Your task to perform on an android device: Open Chrome and go to the settings page Image 0: 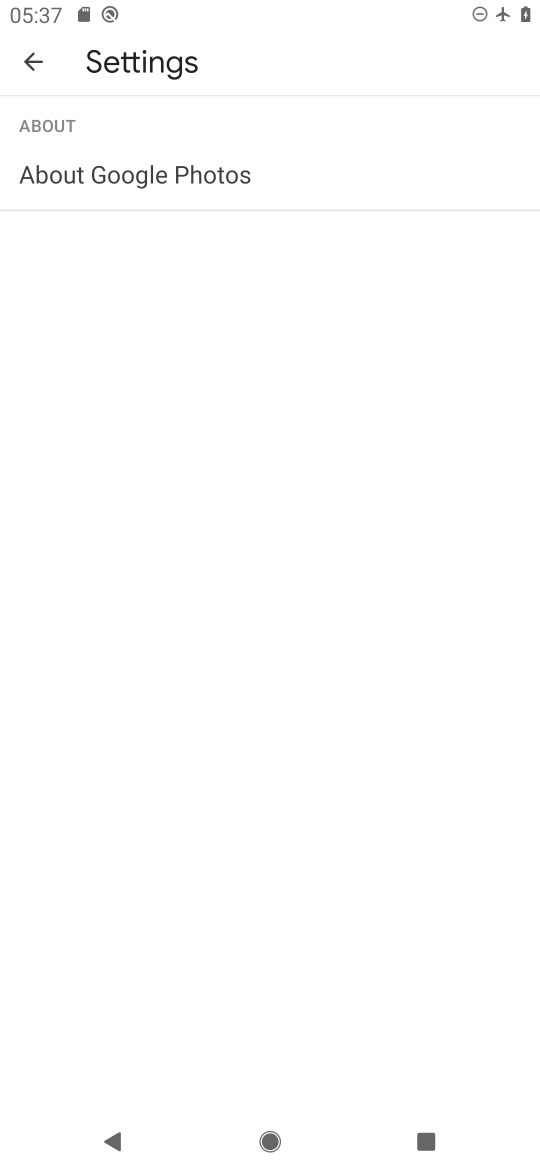
Step 0: press home button
Your task to perform on an android device: Open Chrome and go to the settings page Image 1: 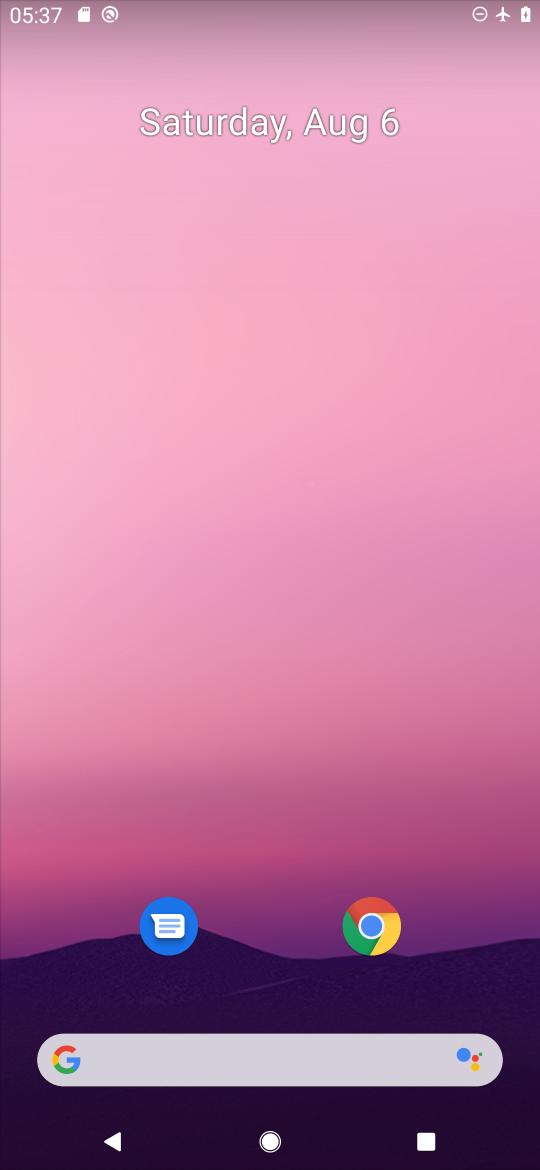
Step 1: click (352, 934)
Your task to perform on an android device: Open Chrome and go to the settings page Image 2: 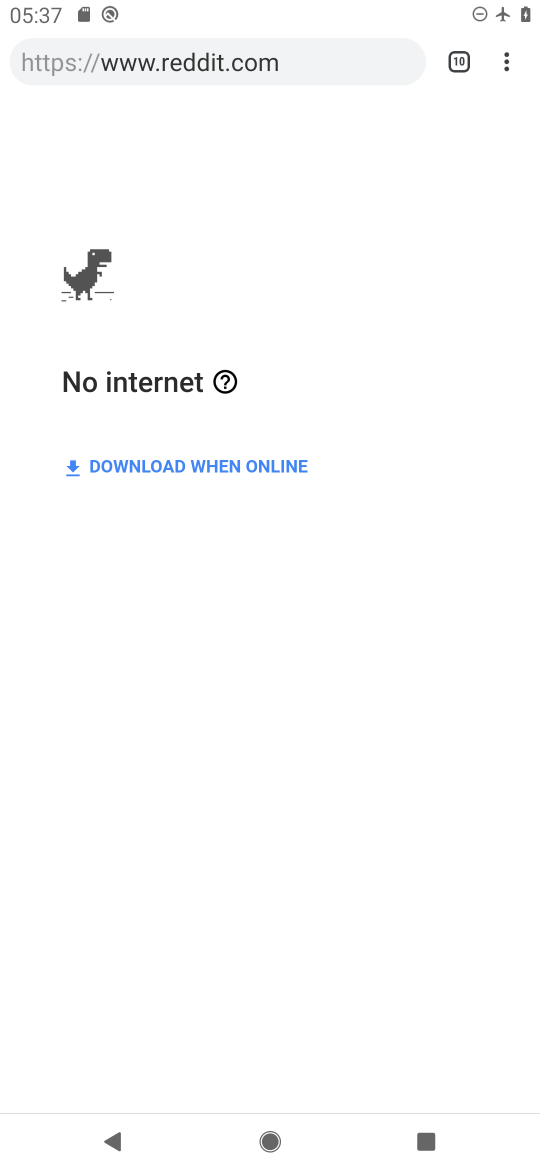
Step 2: click (510, 57)
Your task to perform on an android device: Open Chrome and go to the settings page Image 3: 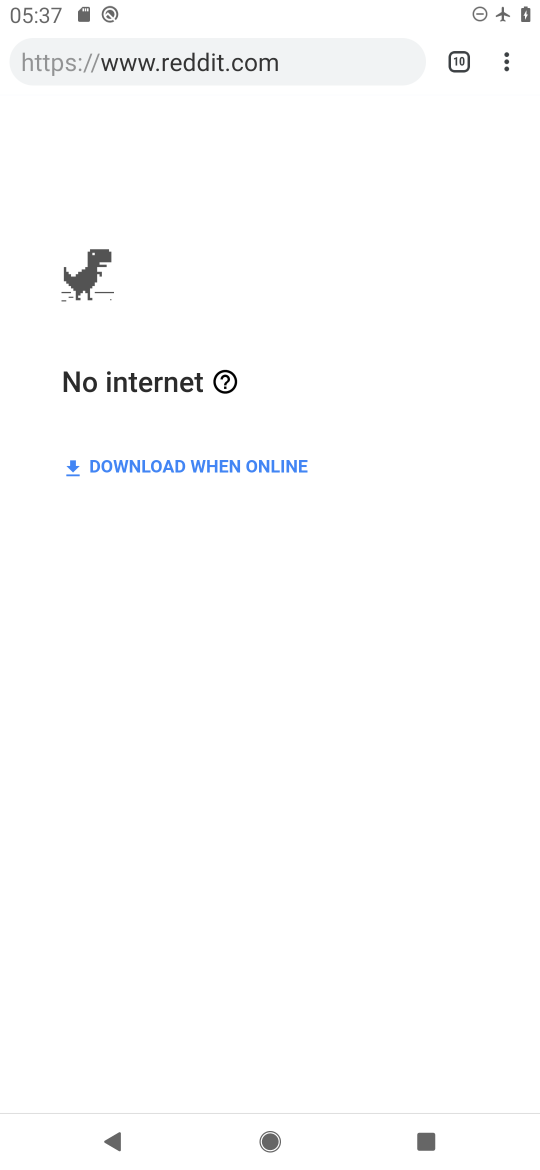
Step 3: click (511, 52)
Your task to perform on an android device: Open Chrome and go to the settings page Image 4: 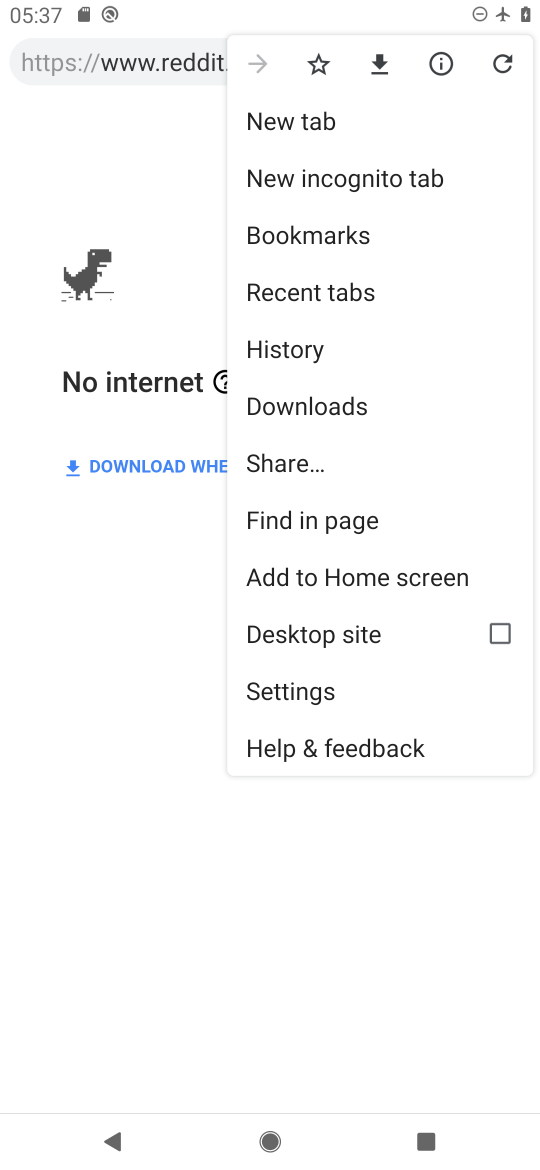
Step 4: click (302, 678)
Your task to perform on an android device: Open Chrome and go to the settings page Image 5: 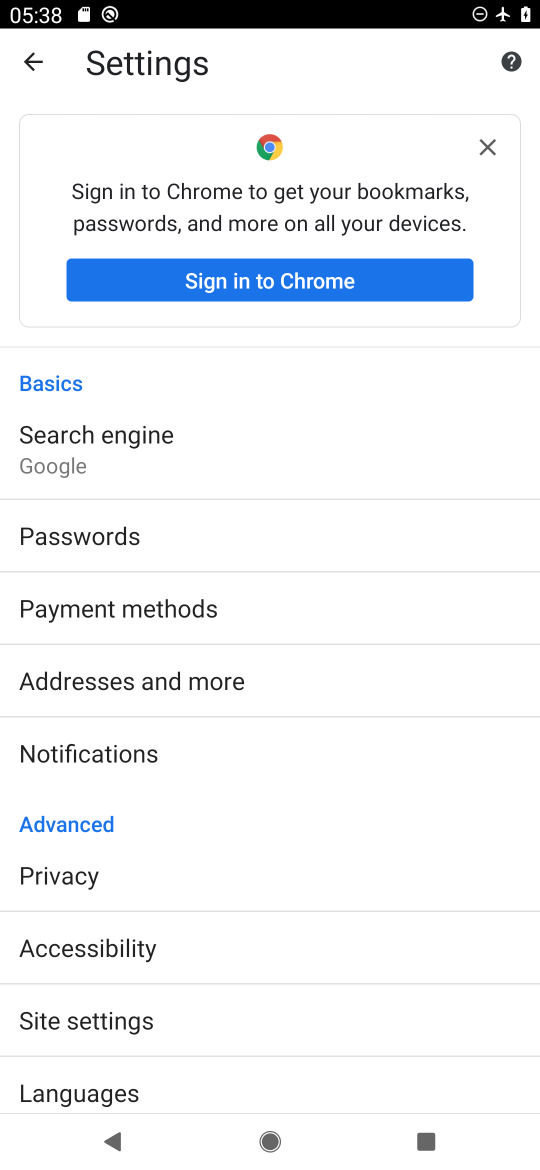
Step 5: task complete